Your task to perform on an android device: Find coffee shops on Maps Image 0: 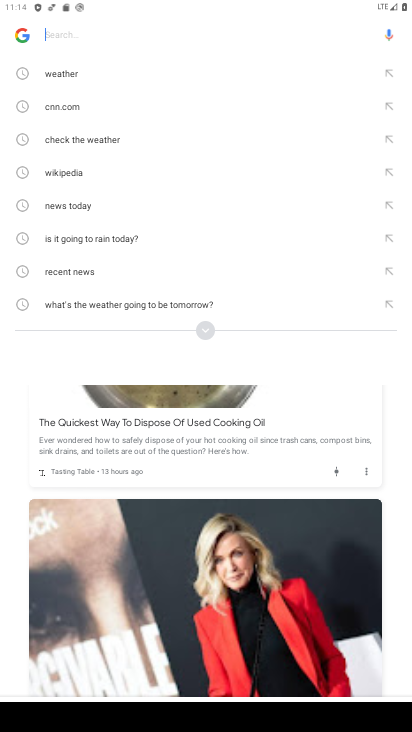
Step 0: press home button
Your task to perform on an android device: Find coffee shops on Maps Image 1: 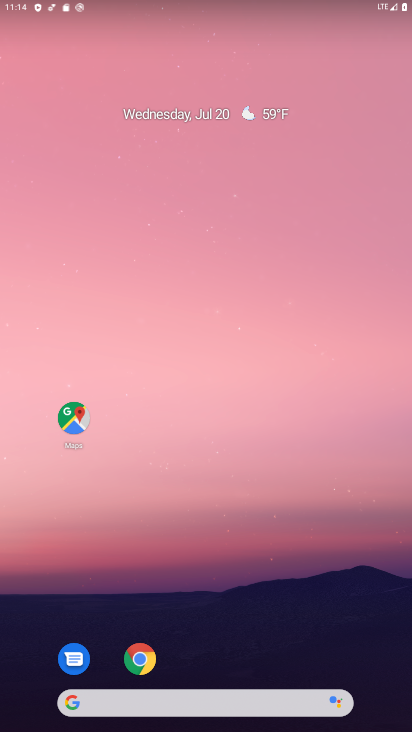
Step 1: drag from (202, 667) to (229, 112)
Your task to perform on an android device: Find coffee shops on Maps Image 2: 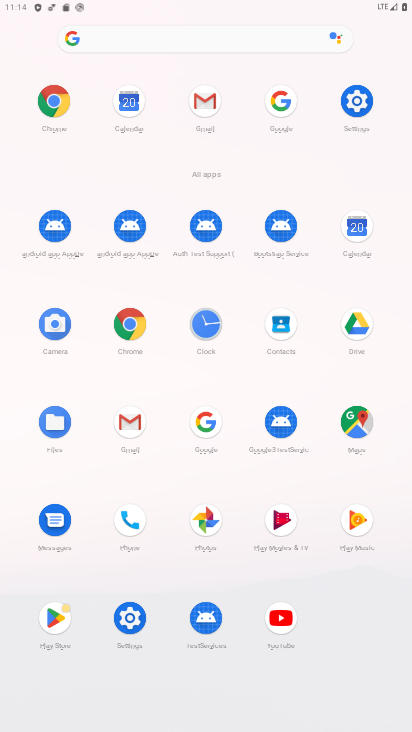
Step 2: click (362, 428)
Your task to perform on an android device: Find coffee shops on Maps Image 3: 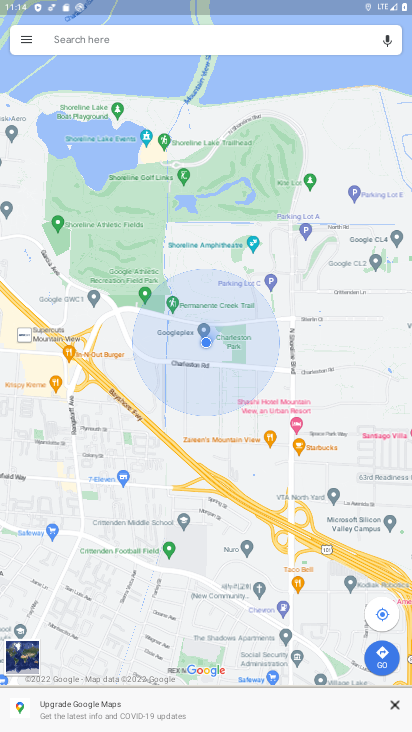
Step 3: click (122, 43)
Your task to perform on an android device: Find coffee shops on Maps Image 4: 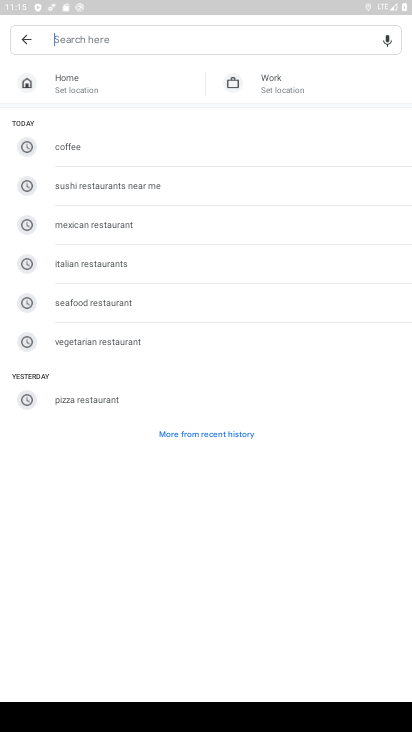
Step 4: type "coffee shops"
Your task to perform on an android device: Find coffee shops on Maps Image 5: 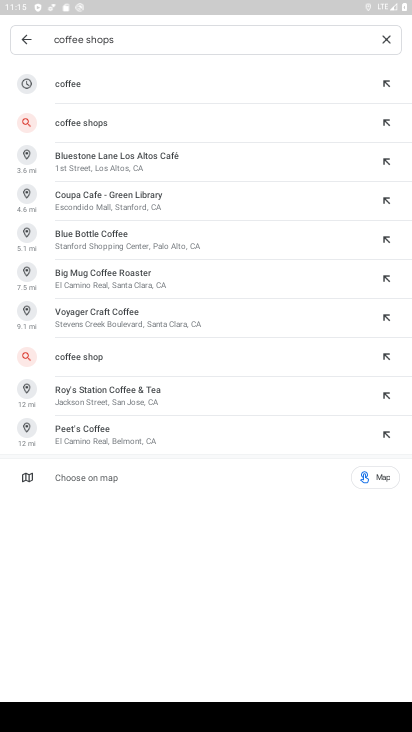
Step 5: click (69, 122)
Your task to perform on an android device: Find coffee shops on Maps Image 6: 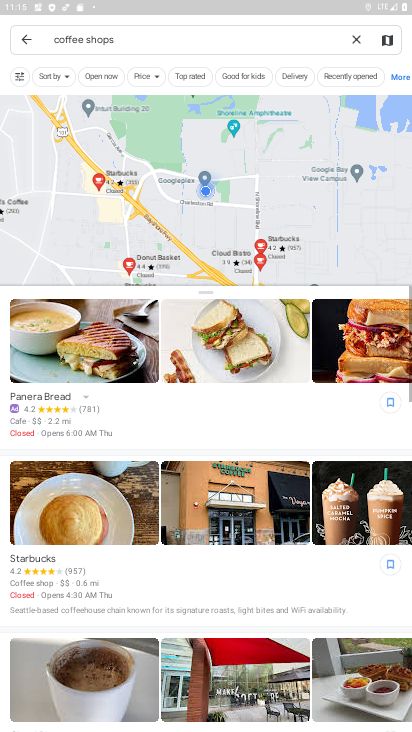
Step 6: task complete